Your task to perform on an android device: Open Chrome and go to the settings page Image 0: 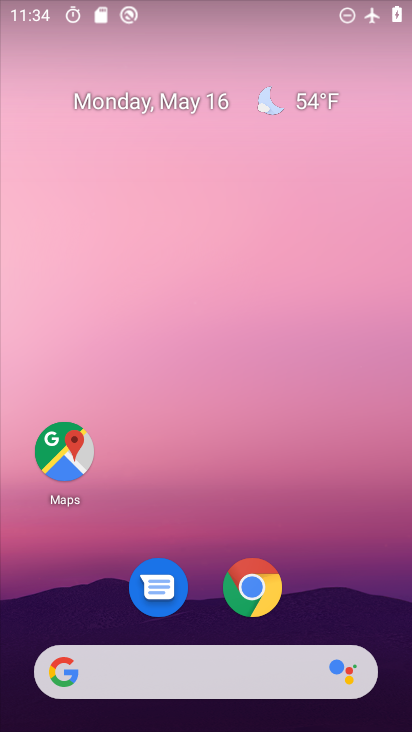
Step 0: drag from (194, 633) to (283, 9)
Your task to perform on an android device: Open Chrome and go to the settings page Image 1: 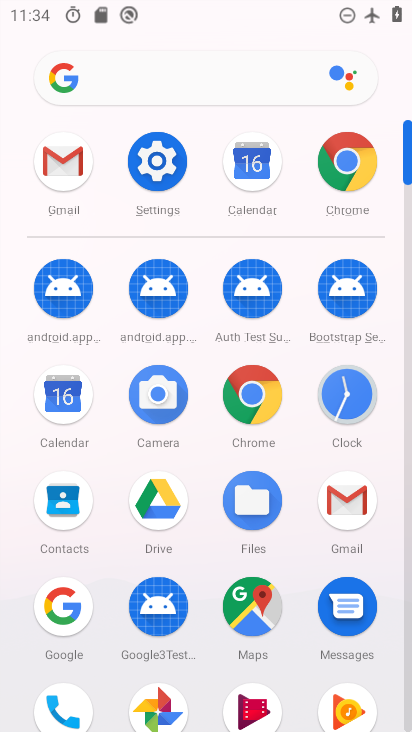
Step 1: click (156, 170)
Your task to perform on an android device: Open Chrome and go to the settings page Image 2: 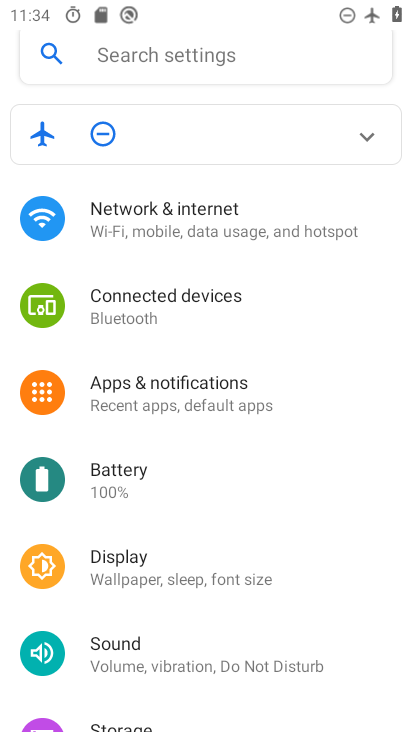
Step 2: drag from (227, 464) to (270, 146)
Your task to perform on an android device: Open Chrome and go to the settings page Image 3: 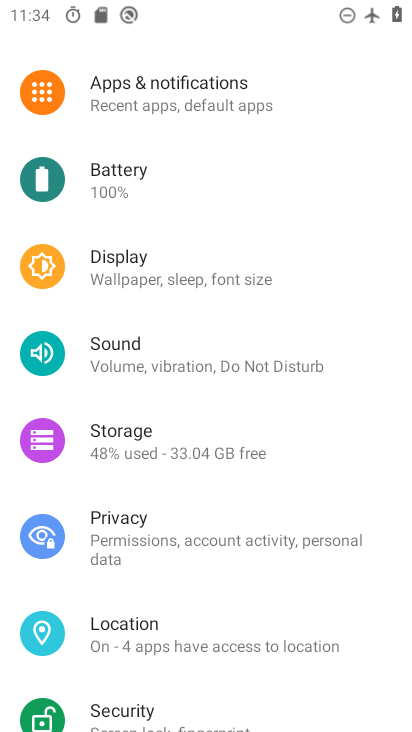
Step 3: drag from (209, 245) to (306, 715)
Your task to perform on an android device: Open Chrome and go to the settings page Image 4: 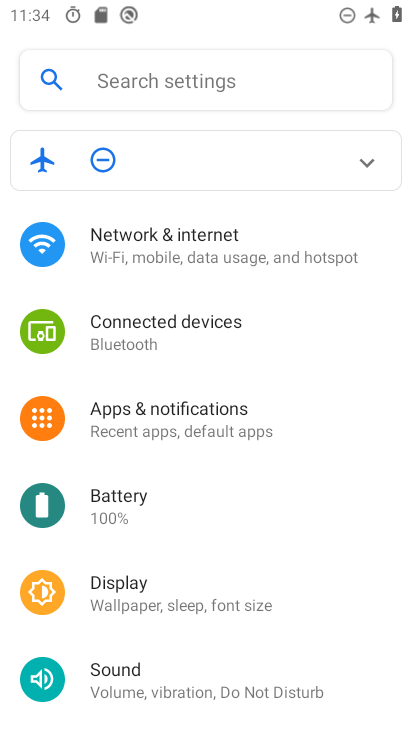
Step 4: drag from (248, 658) to (309, 294)
Your task to perform on an android device: Open Chrome and go to the settings page Image 5: 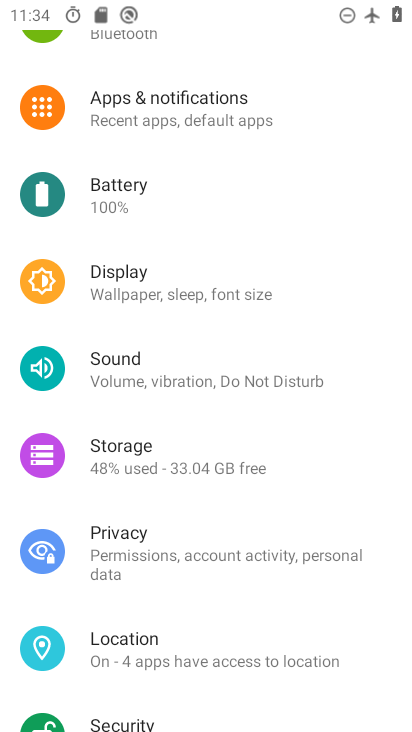
Step 5: drag from (309, 259) to (349, 726)
Your task to perform on an android device: Open Chrome and go to the settings page Image 6: 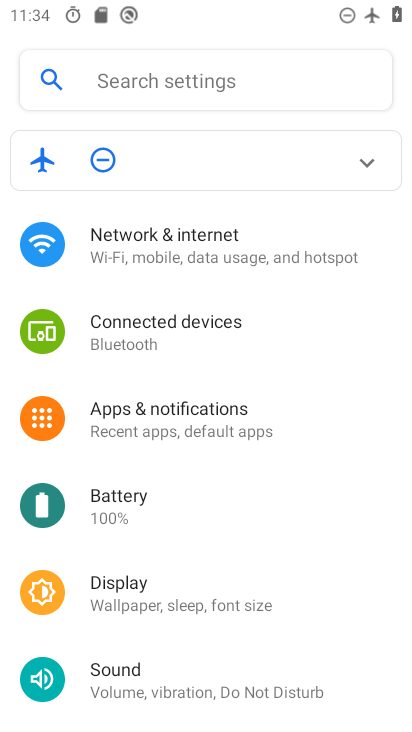
Step 6: press back button
Your task to perform on an android device: Open Chrome and go to the settings page Image 7: 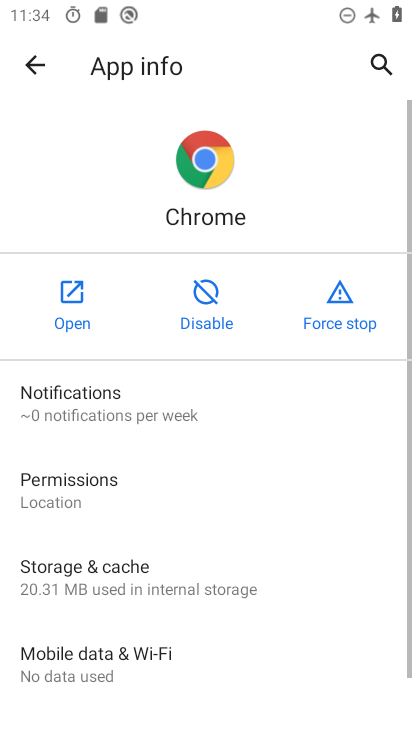
Step 7: click (64, 310)
Your task to perform on an android device: Open Chrome and go to the settings page Image 8: 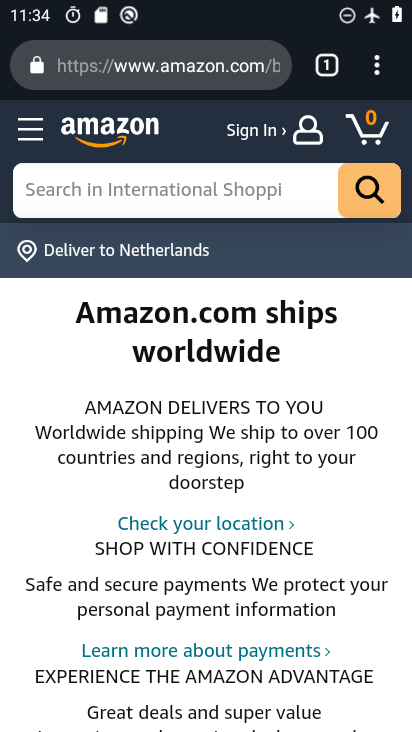
Step 8: click (375, 56)
Your task to perform on an android device: Open Chrome and go to the settings page Image 9: 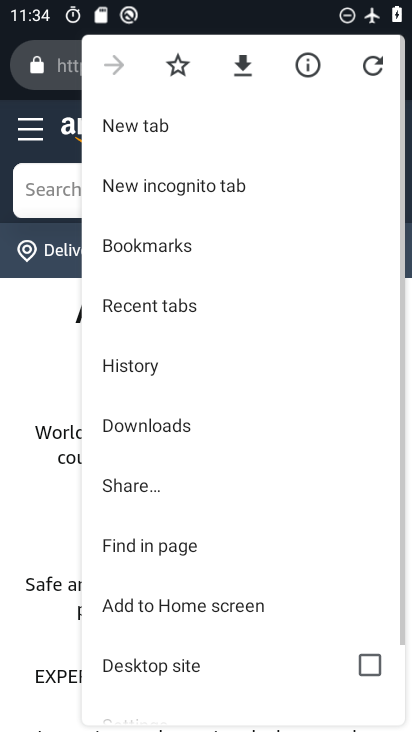
Step 9: drag from (244, 664) to (278, 125)
Your task to perform on an android device: Open Chrome and go to the settings page Image 10: 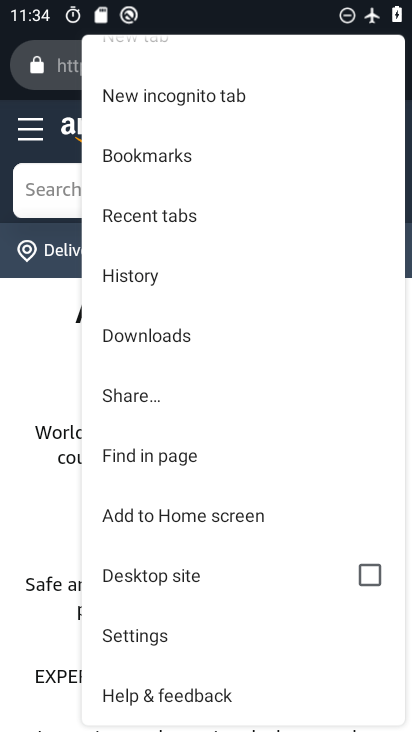
Step 10: click (162, 627)
Your task to perform on an android device: Open Chrome and go to the settings page Image 11: 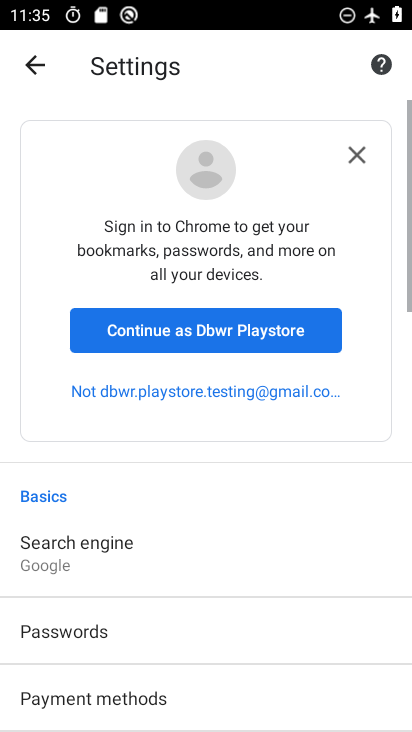
Step 11: task complete